Your task to perform on an android device: turn on location history Image 0: 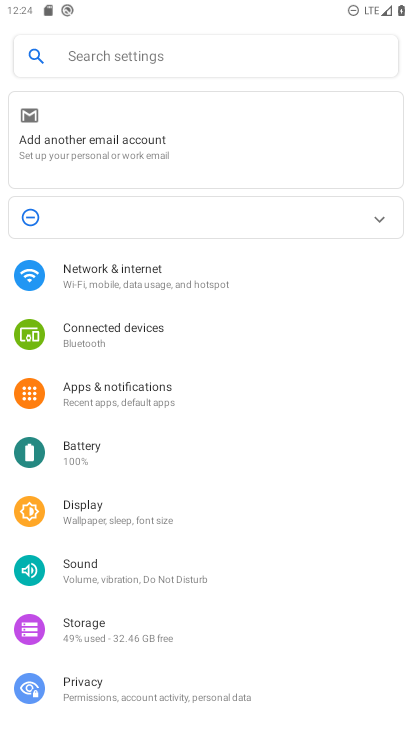
Step 0: drag from (268, 586) to (283, 124)
Your task to perform on an android device: turn on location history Image 1: 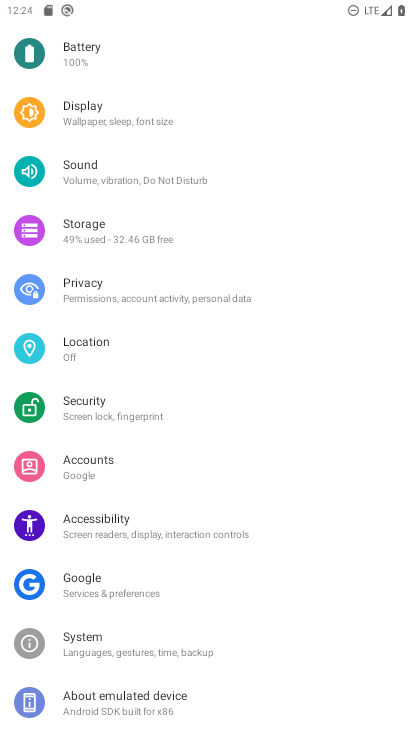
Step 1: click (98, 354)
Your task to perform on an android device: turn on location history Image 2: 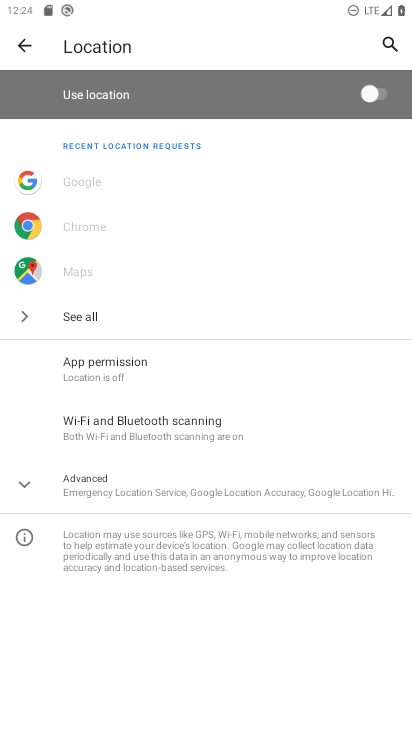
Step 2: click (119, 475)
Your task to perform on an android device: turn on location history Image 3: 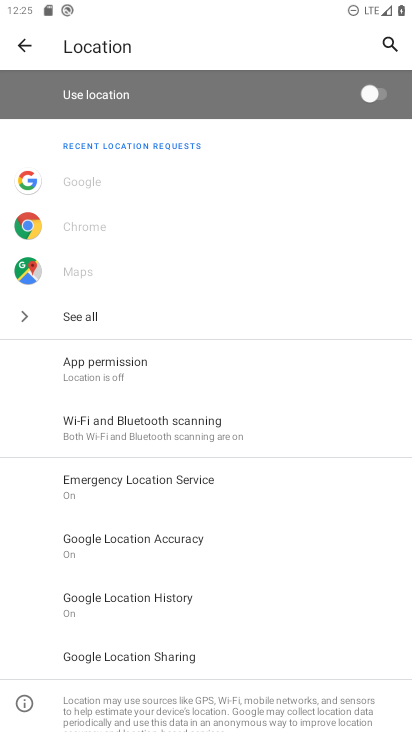
Step 3: click (141, 602)
Your task to perform on an android device: turn on location history Image 4: 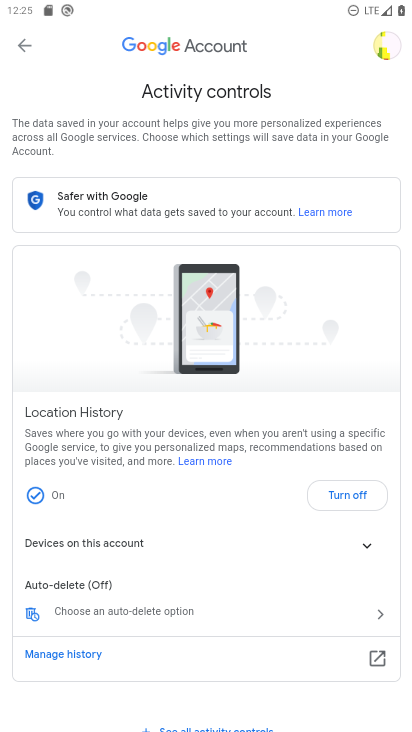
Step 4: task complete